Your task to perform on an android device: change the upload size in google photos Image 0: 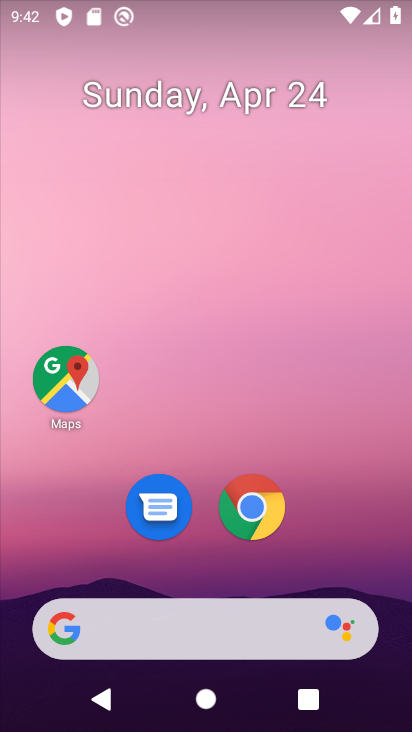
Step 0: drag from (147, 549) to (225, 107)
Your task to perform on an android device: change the upload size in google photos Image 1: 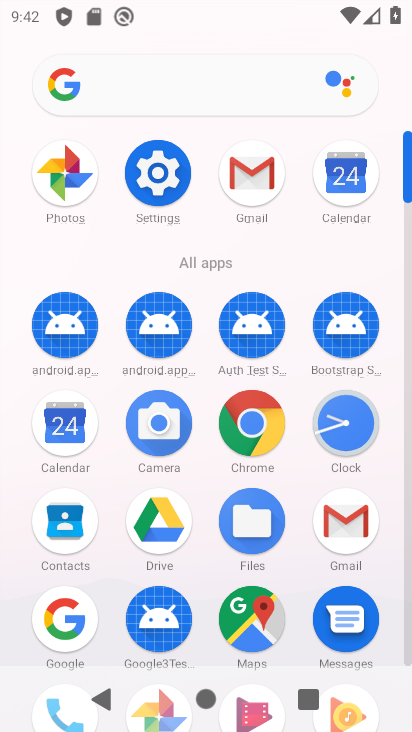
Step 1: click (65, 184)
Your task to perform on an android device: change the upload size in google photos Image 2: 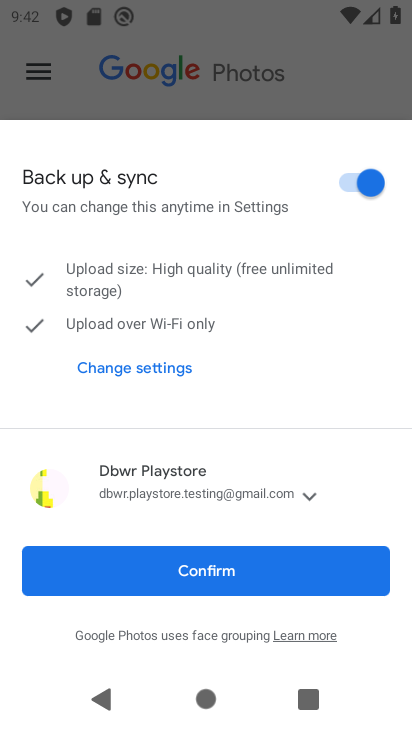
Step 2: click (232, 584)
Your task to perform on an android device: change the upload size in google photos Image 3: 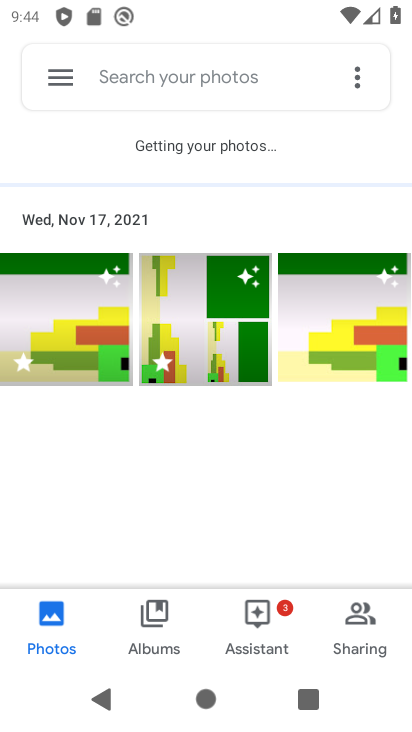
Step 3: click (59, 79)
Your task to perform on an android device: change the upload size in google photos Image 4: 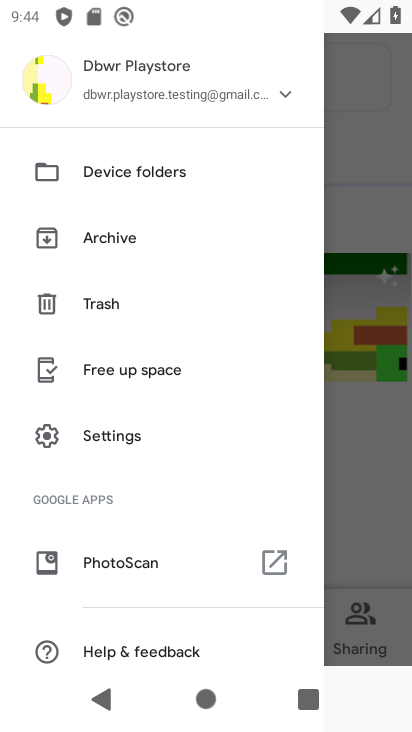
Step 4: click (114, 438)
Your task to perform on an android device: change the upload size in google photos Image 5: 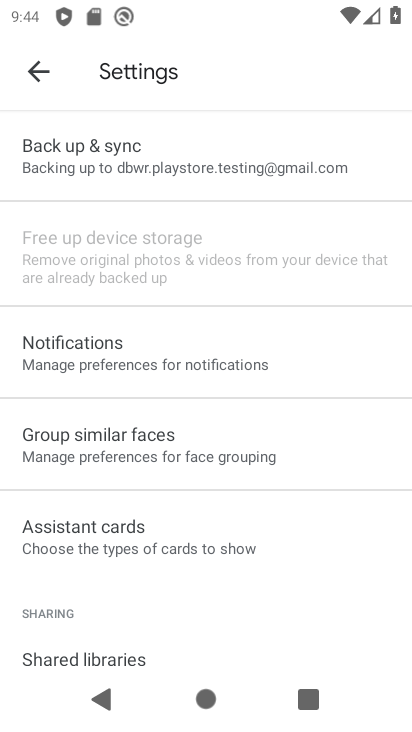
Step 5: click (212, 159)
Your task to perform on an android device: change the upload size in google photos Image 6: 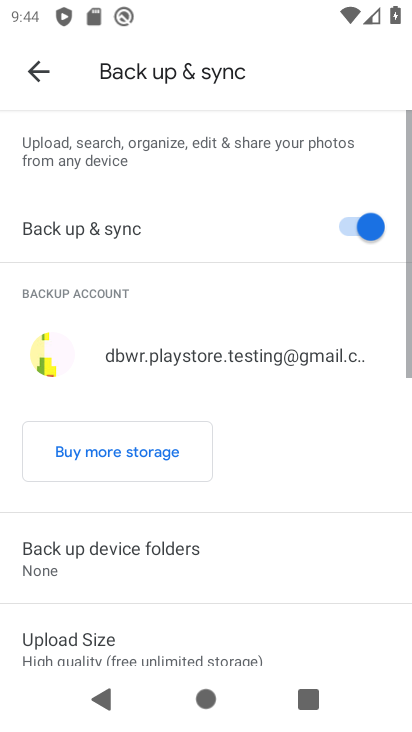
Step 6: drag from (196, 551) to (298, 204)
Your task to perform on an android device: change the upload size in google photos Image 7: 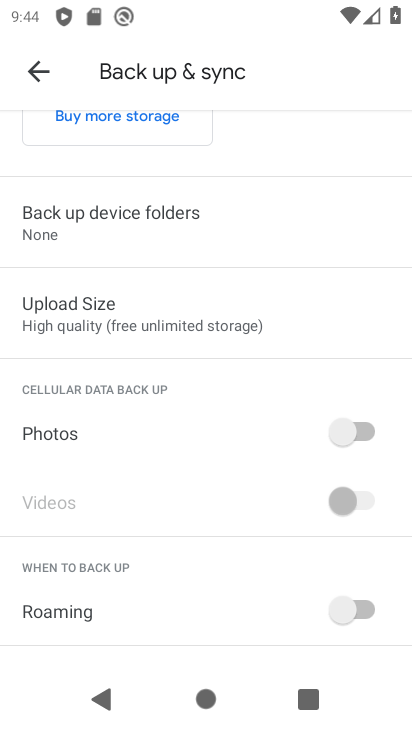
Step 7: click (186, 335)
Your task to perform on an android device: change the upload size in google photos Image 8: 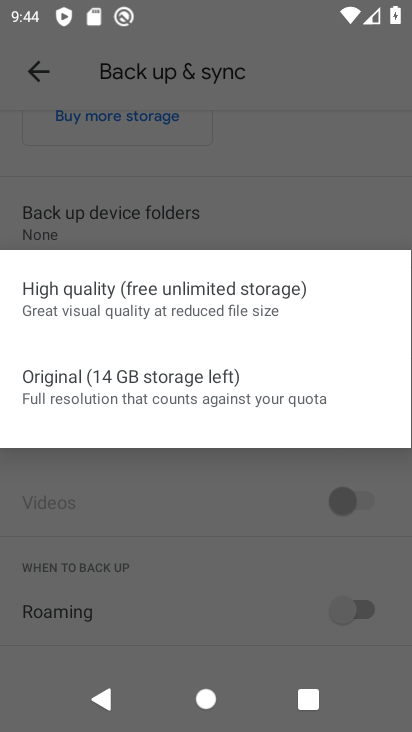
Step 8: click (178, 381)
Your task to perform on an android device: change the upload size in google photos Image 9: 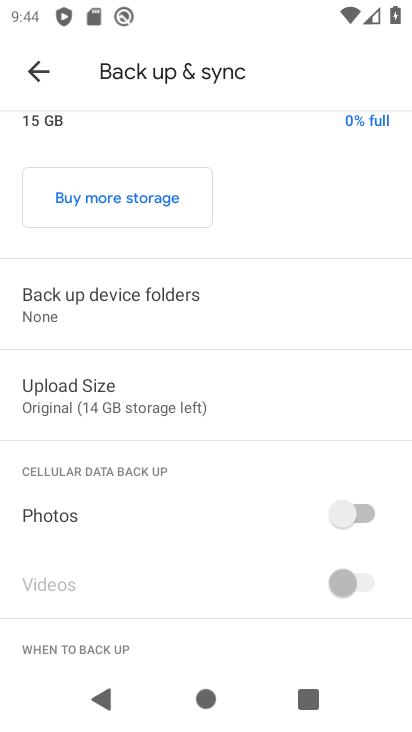
Step 9: task complete